Your task to perform on an android device: turn pop-ups on in chrome Image 0: 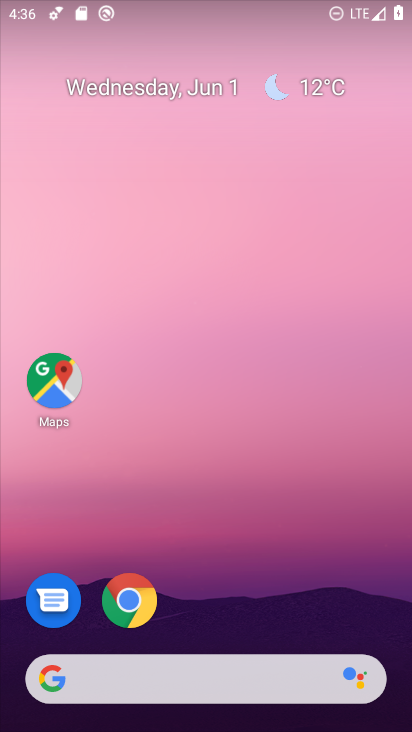
Step 0: click (131, 599)
Your task to perform on an android device: turn pop-ups on in chrome Image 1: 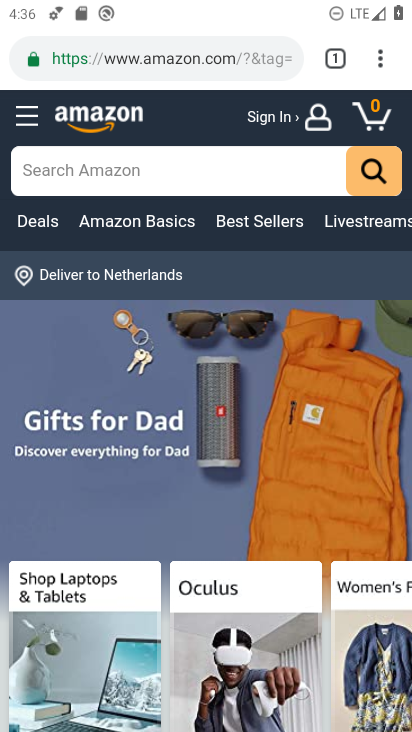
Step 1: click (380, 61)
Your task to perform on an android device: turn pop-ups on in chrome Image 2: 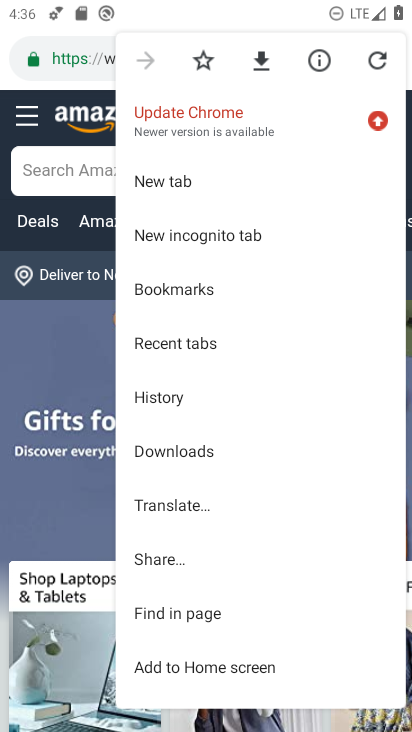
Step 2: drag from (351, 650) to (267, 170)
Your task to perform on an android device: turn pop-ups on in chrome Image 3: 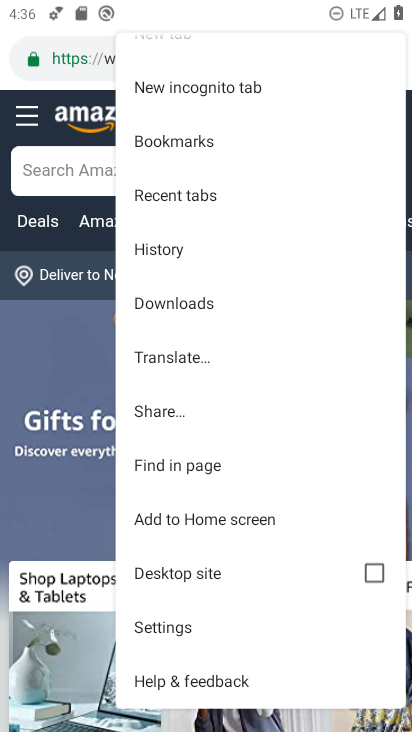
Step 3: click (172, 627)
Your task to perform on an android device: turn pop-ups on in chrome Image 4: 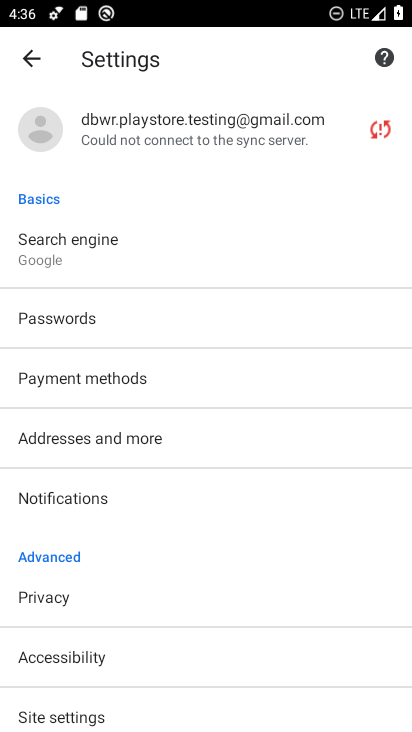
Step 4: drag from (318, 642) to (293, 211)
Your task to perform on an android device: turn pop-ups on in chrome Image 5: 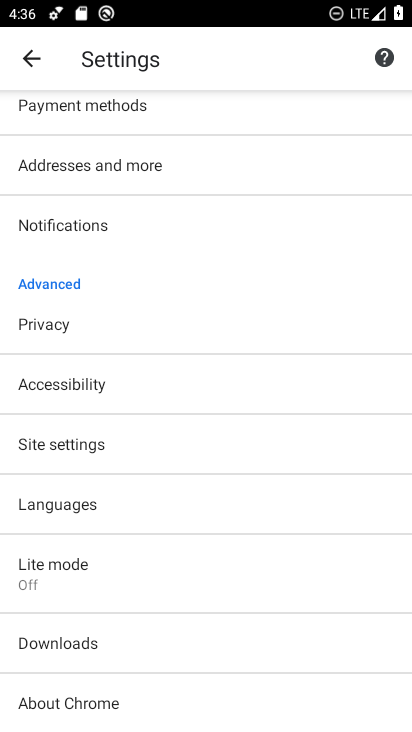
Step 5: click (85, 444)
Your task to perform on an android device: turn pop-ups on in chrome Image 6: 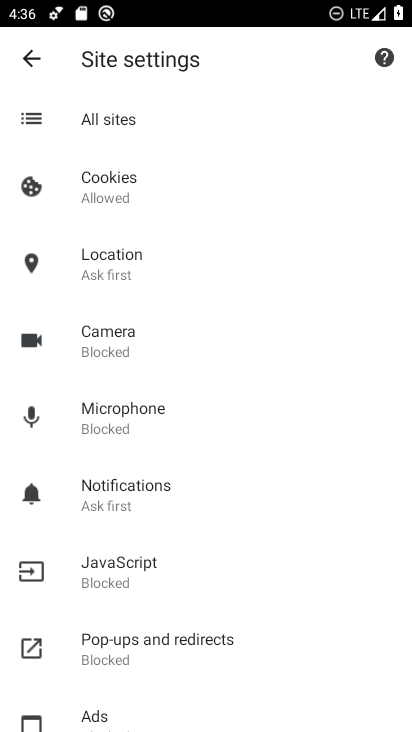
Step 6: click (142, 647)
Your task to perform on an android device: turn pop-ups on in chrome Image 7: 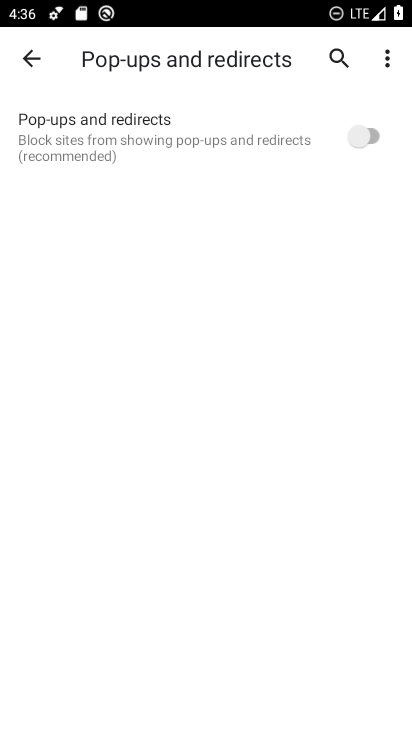
Step 7: click (376, 136)
Your task to perform on an android device: turn pop-ups on in chrome Image 8: 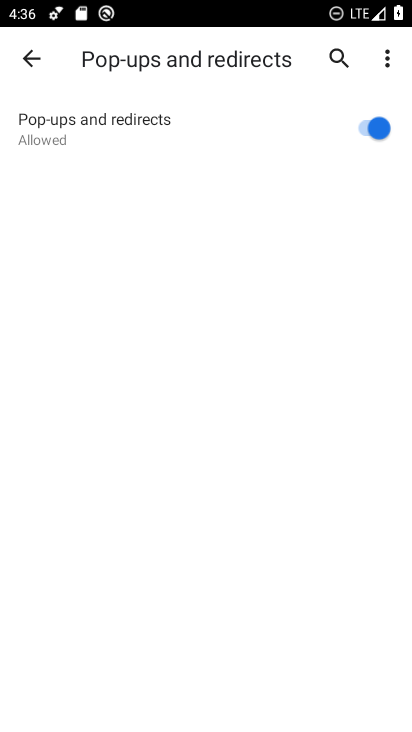
Step 8: task complete